Your task to perform on an android device: Open wifi settings Image 0: 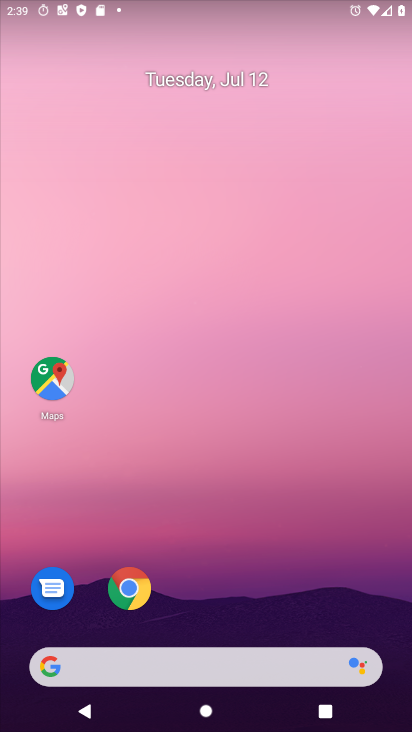
Step 0: drag from (138, 587) to (297, 7)
Your task to perform on an android device: Open wifi settings Image 1: 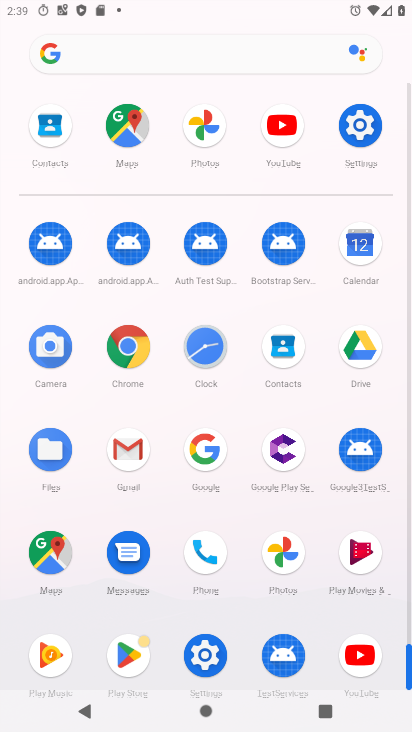
Step 1: click (343, 138)
Your task to perform on an android device: Open wifi settings Image 2: 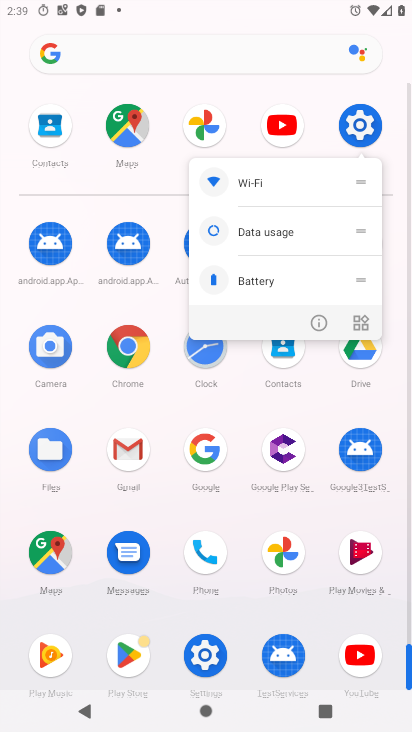
Step 2: click (288, 181)
Your task to perform on an android device: Open wifi settings Image 3: 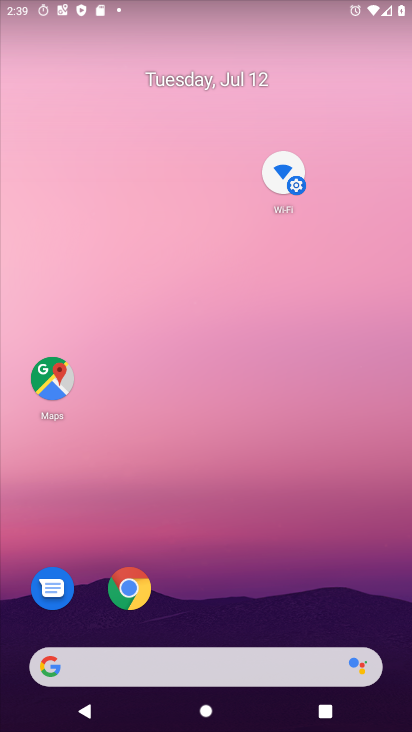
Step 3: click (290, 178)
Your task to perform on an android device: Open wifi settings Image 4: 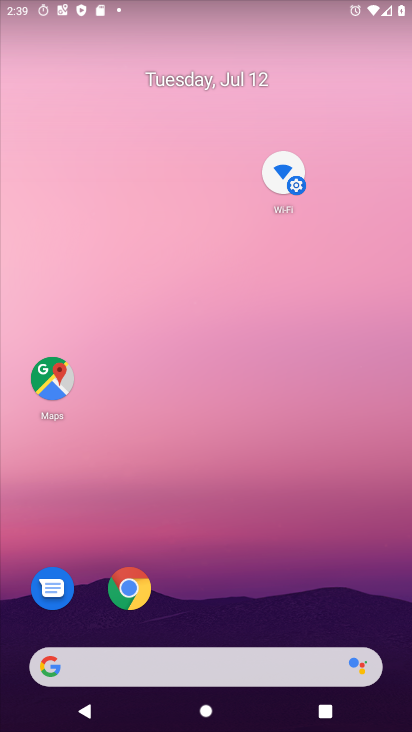
Step 4: drag from (186, 583) to (314, 40)
Your task to perform on an android device: Open wifi settings Image 5: 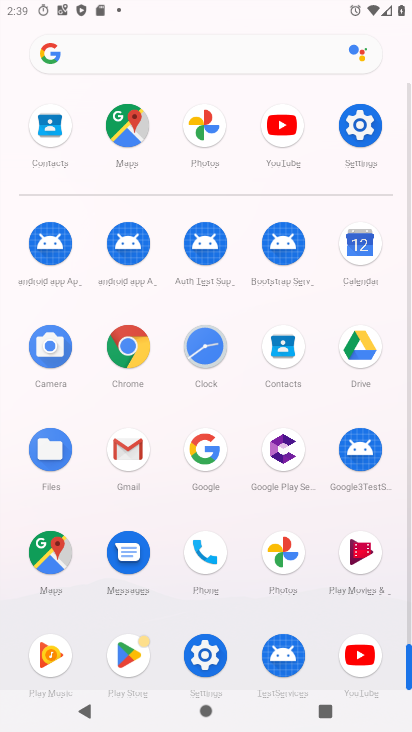
Step 5: click (364, 137)
Your task to perform on an android device: Open wifi settings Image 6: 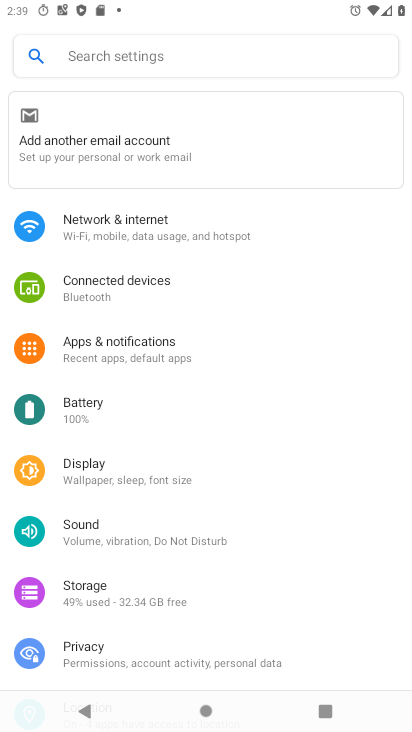
Step 6: click (76, 236)
Your task to perform on an android device: Open wifi settings Image 7: 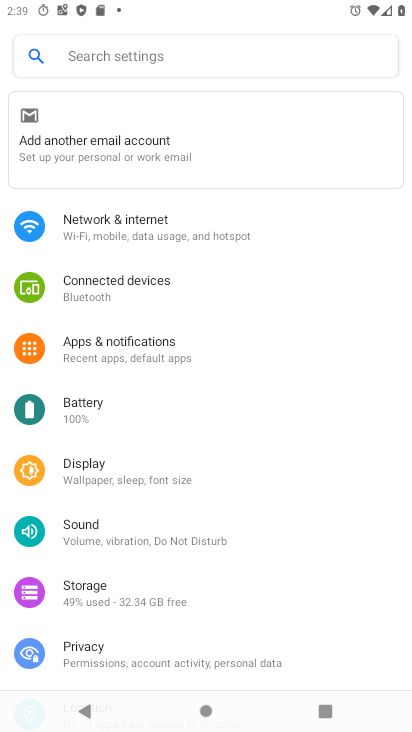
Step 7: click (75, 235)
Your task to perform on an android device: Open wifi settings Image 8: 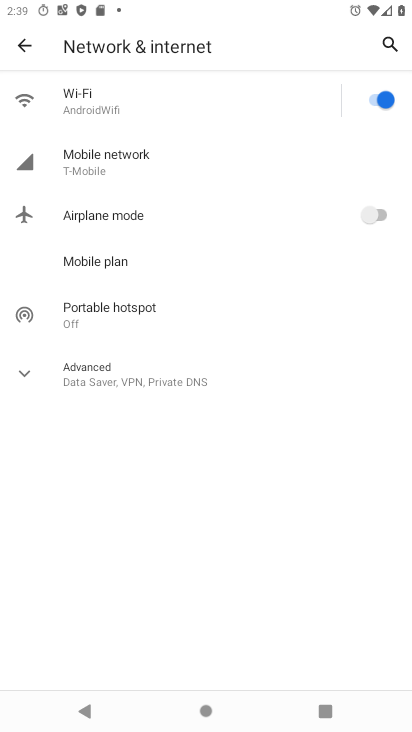
Step 8: click (114, 108)
Your task to perform on an android device: Open wifi settings Image 9: 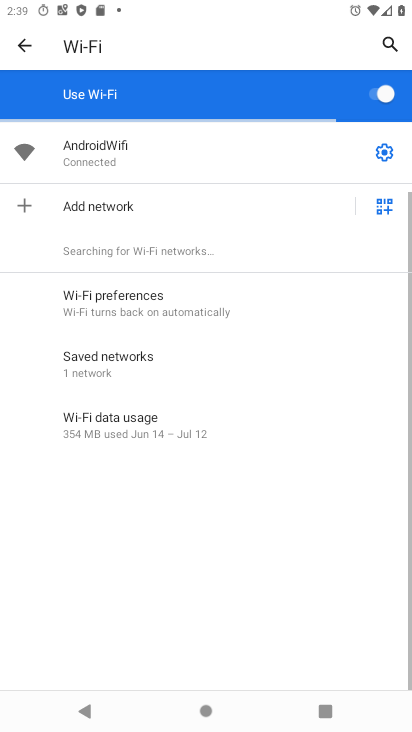
Step 9: click (375, 157)
Your task to perform on an android device: Open wifi settings Image 10: 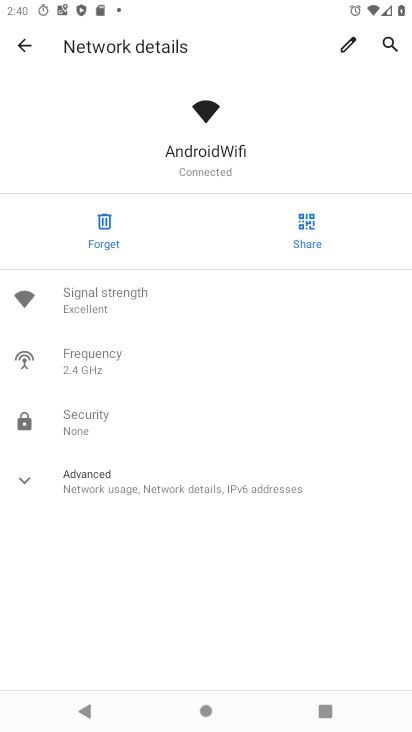
Step 10: task complete